Your task to perform on an android device: Search for flights from NYC to San Diego Image 0: 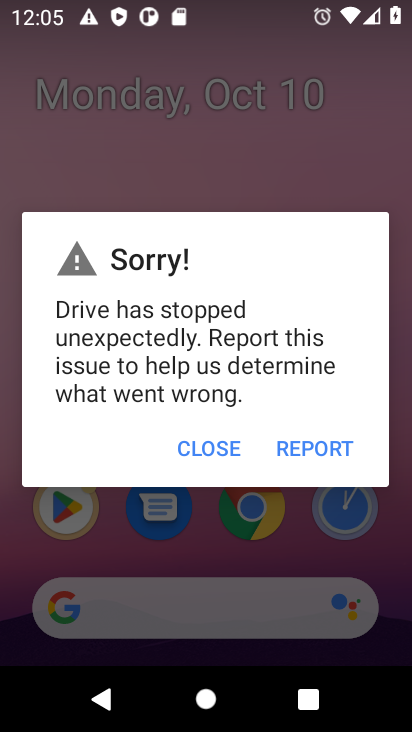
Step 0: press home button
Your task to perform on an android device: Search for flights from NYC to San Diego Image 1: 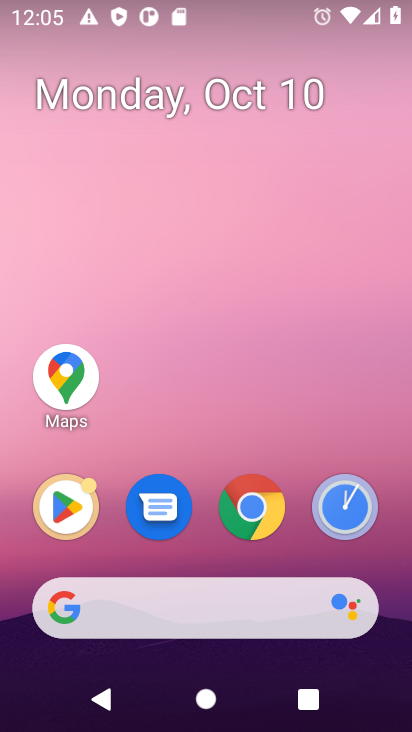
Step 1: click (228, 619)
Your task to perform on an android device: Search for flights from NYC to San Diego Image 2: 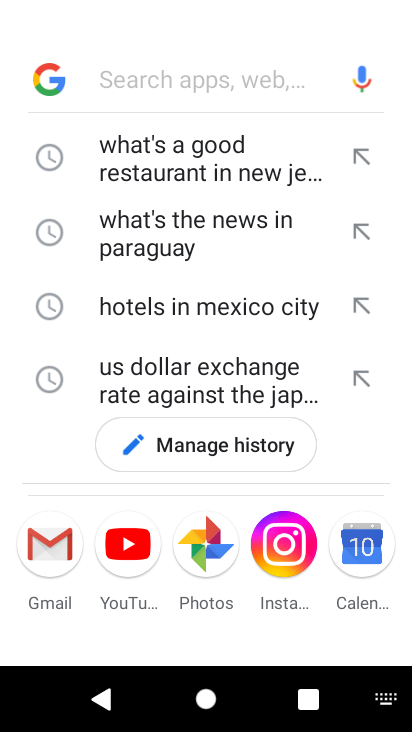
Step 2: type "flights from NYC to San Diego"
Your task to perform on an android device: Search for flights from NYC to San Diego Image 3: 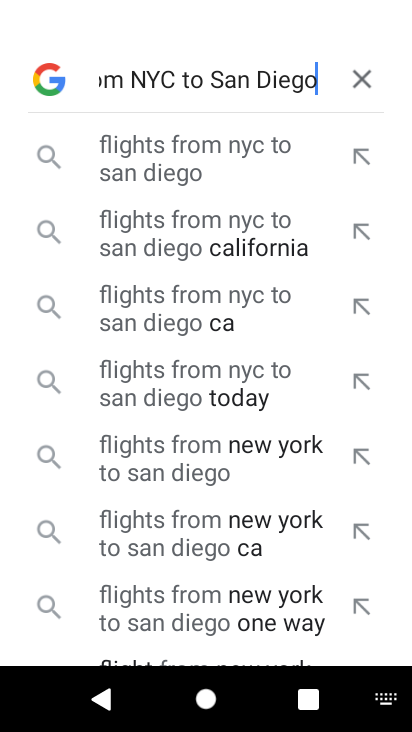
Step 3: press enter
Your task to perform on an android device: Search for flights from NYC to San Diego Image 4: 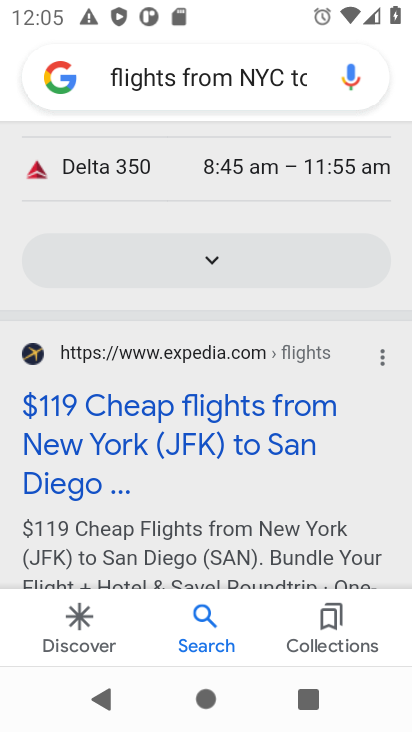
Step 4: drag from (263, 508) to (248, 271)
Your task to perform on an android device: Search for flights from NYC to San Diego Image 5: 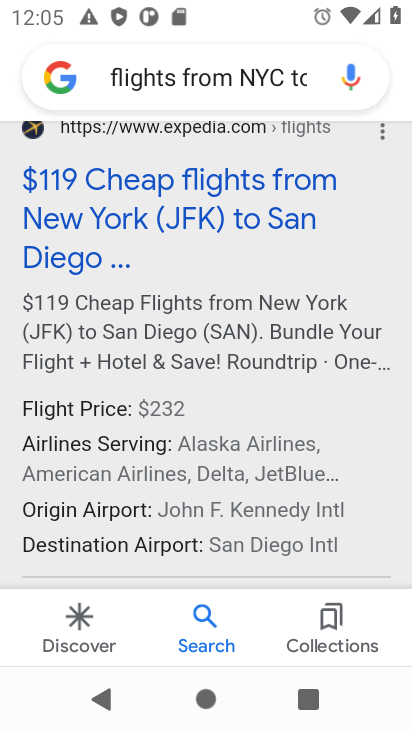
Step 5: drag from (251, 184) to (265, 538)
Your task to perform on an android device: Search for flights from NYC to San Diego Image 6: 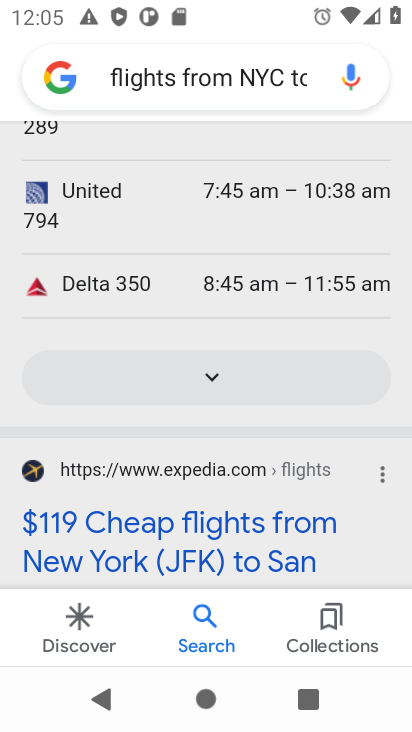
Step 6: drag from (287, 205) to (295, 468)
Your task to perform on an android device: Search for flights from NYC to San Diego Image 7: 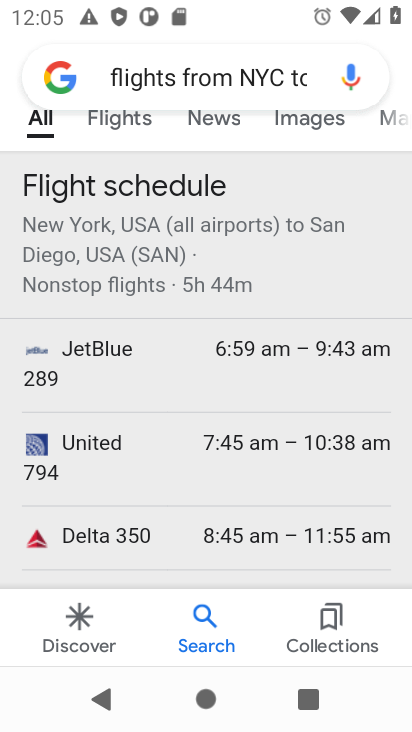
Step 7: drag from (287, 484) to (296, 241)
Your task to perform on an android device: Search for flights from NYC to San Diego Image 8: 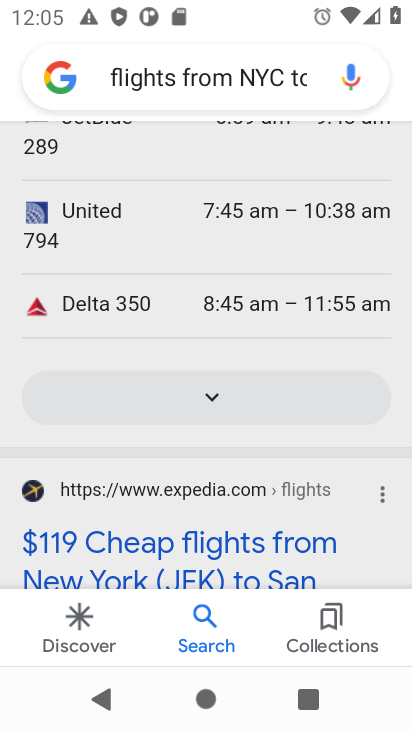
Step 8: click (204, 396)
Your task to perform on an android device: Search for flights from NYC to San Diego Image 9: 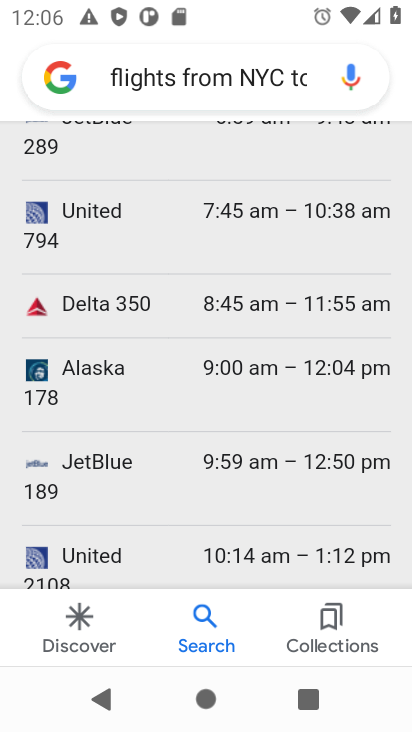
Step 9: task complete